Your task to perform on an android device: turn off smart reply in the gmail app Image 0: 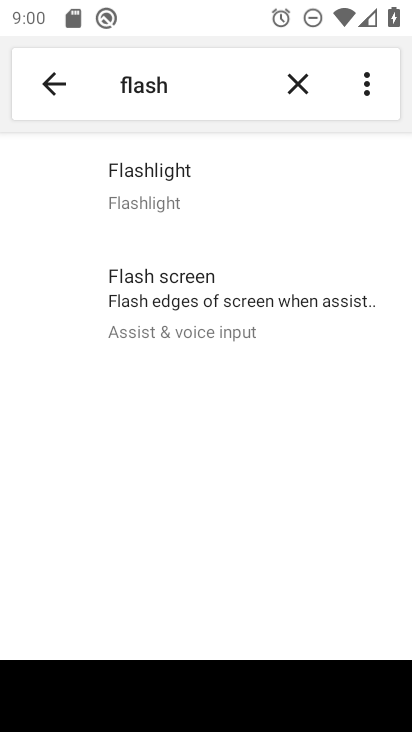
Step 0: press home button
Your task to perform on an android device: turn off smart reply in the gmail app Image 1: 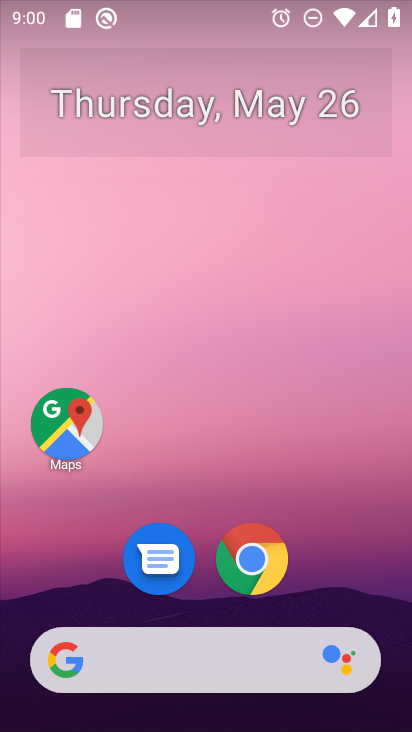
Step 1: drag from (204, 591) to (221, 137)
Your task to perform on an android device: turn off smart reply in the gmail app Image 2: 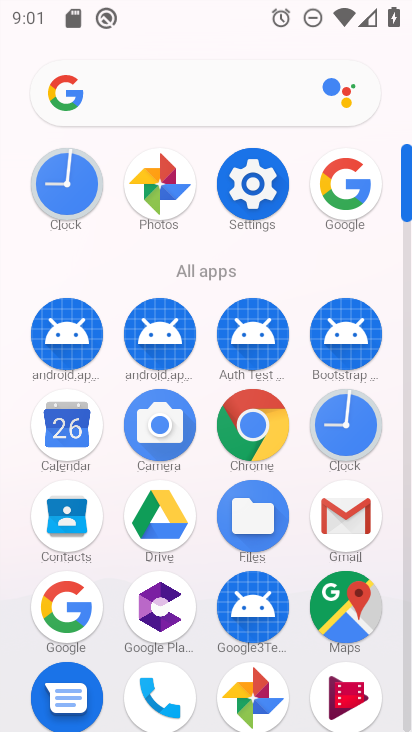
Step 2: click (352, 514)
Your task to perform on an android device: turn off smart reply in the gmail app Image 3: 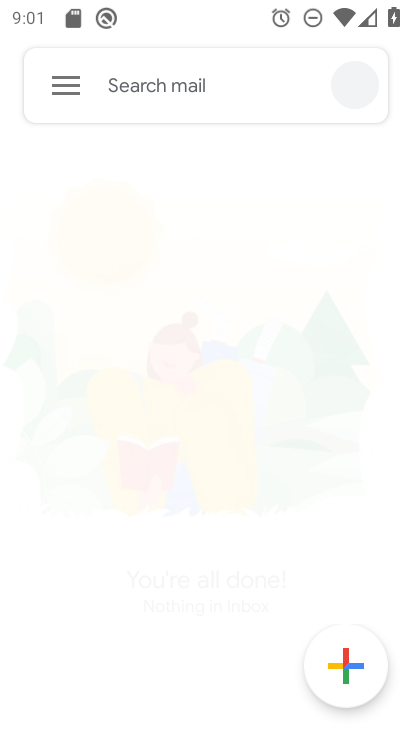
Step 3: click (68, 88)
Your task to perform on an android device: turn off smart reply in the gmail app Image 4: 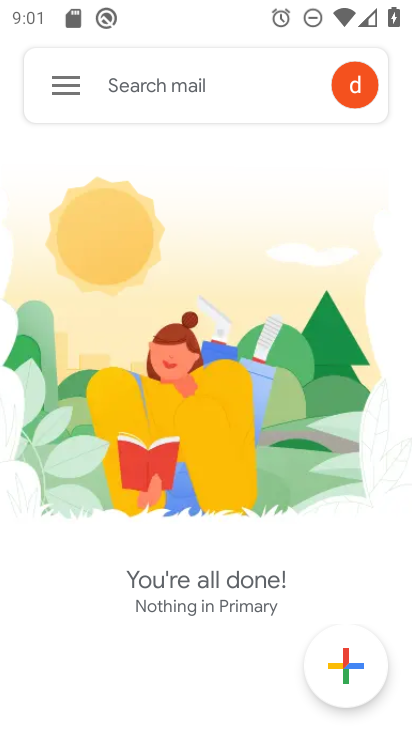
Step 4: click (66, 79)
Your task to perform on an android device: turn off smart reply in the gmail app Image 5: 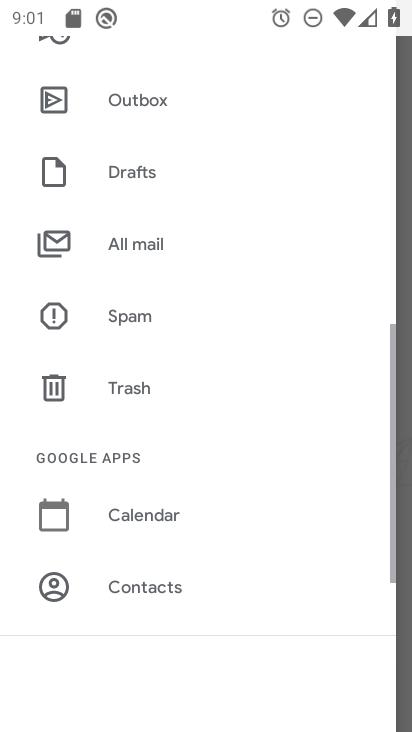
Step 5: drag from (160, 518) to (185, 155)
Your task to perform on an android device: turn off smart reply in the gmail app Image 6: 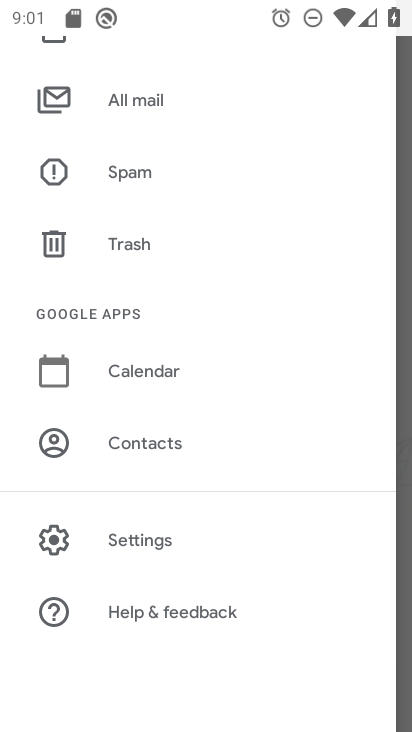
Step 6: click (142, 550)
Your task to perform on an android device: turn off smart reply in the gmail app Image 7: 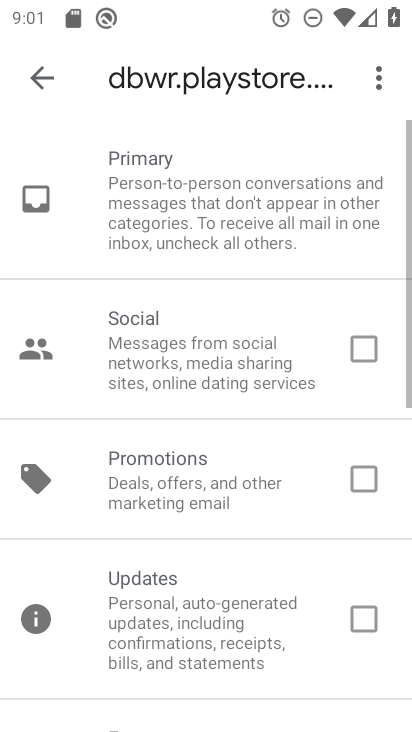
Step 7: drag from (242, 572) to (235, 85)
Your task to perform on an android device: turn off smart reply in the gmail app Image 8: 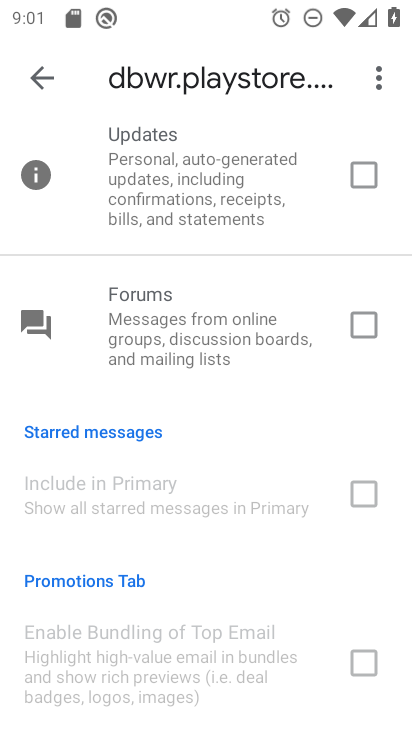
Step 8: drag from (203, 666) to (239, 241)
Your task to perform on an android device: turn off smart reply in the gmail app Image 9: 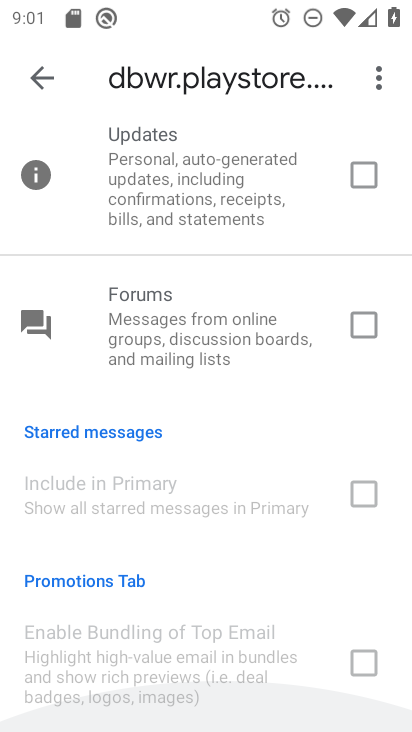
Step 9: drag from (209, 233) to (212, 698)
Your task to perform on an android device: turn off smart reply in the gmail app Image 10: 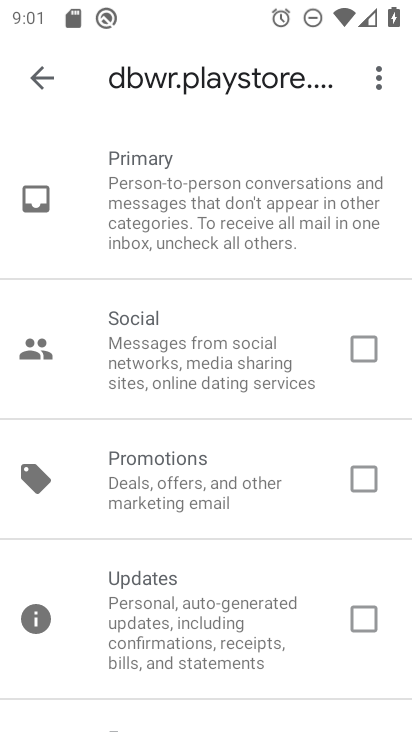
Step 10: press back button
Your task to perform on an android device: turn off smart reply in the gmail app Image 11: 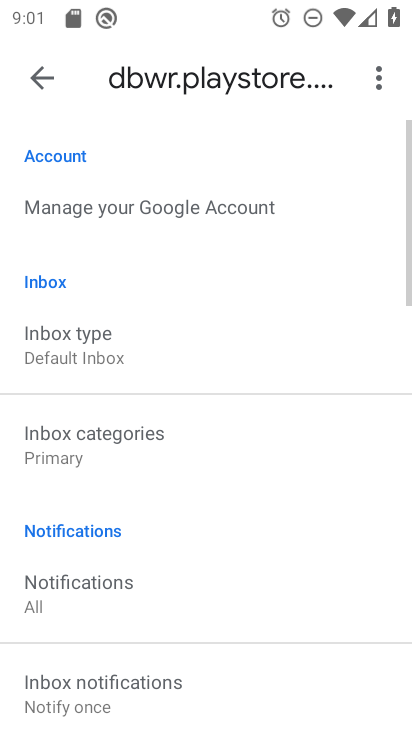
Step 11: drag from (187, 644) to (248, 140)
Your task to perform on an android device: turn off smart reply in the gmail app Image 12: 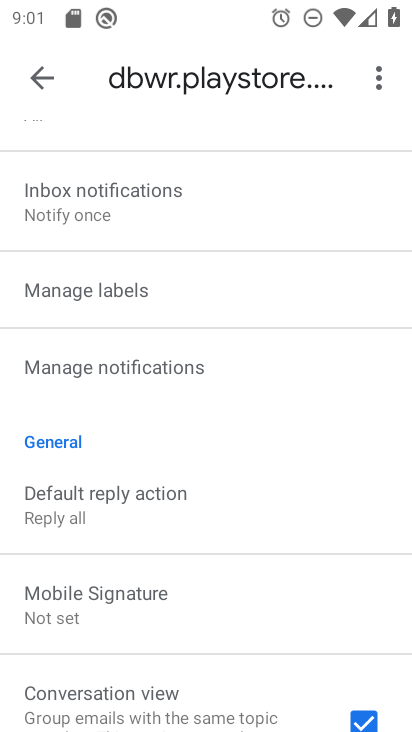
Step 12: drag from (201, 678) to (273, 231)
Your task to perform on an android device: turn off smart reply in the gmail app Image 13: 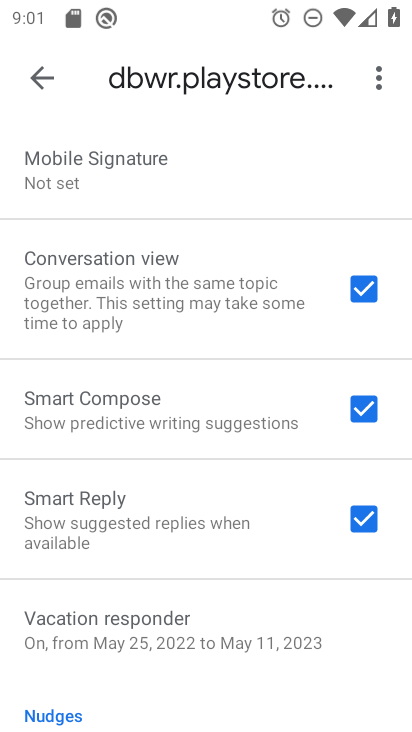
Step 13: click (369, 529)
Your task to perform on an android device: turn off smart reply in the gmail app Image 14: 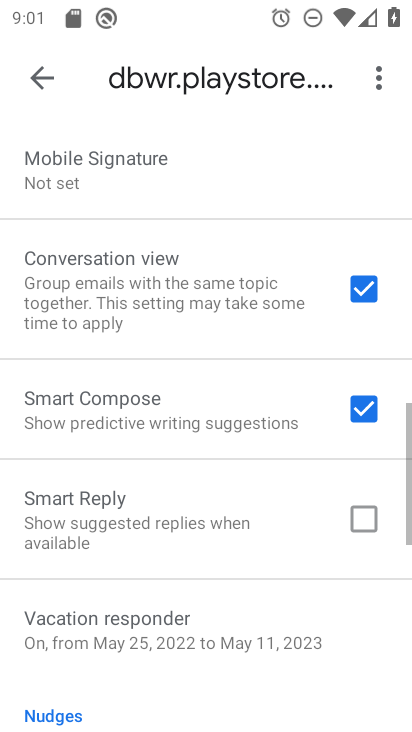
Step 14: task complete